Your task to perform on an android device: Go to calendar. Show me events next week Image 0: 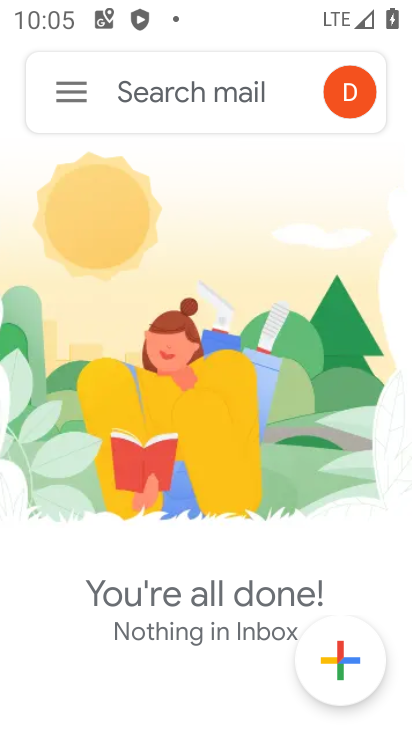
Step 0: press home button
Your task to perform on an android device: Go to calendar. Show me events next week Image 1: 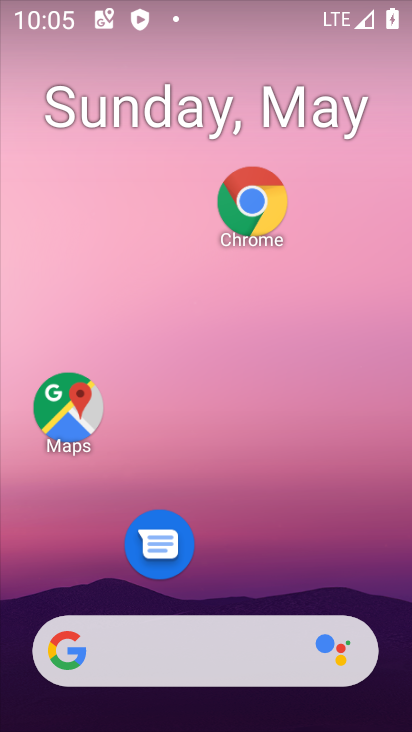
Step 1: drag from (248, 529) to (201, 44)
Your task to perform on an android device: Go to calendar. Show me events next week Image 2: 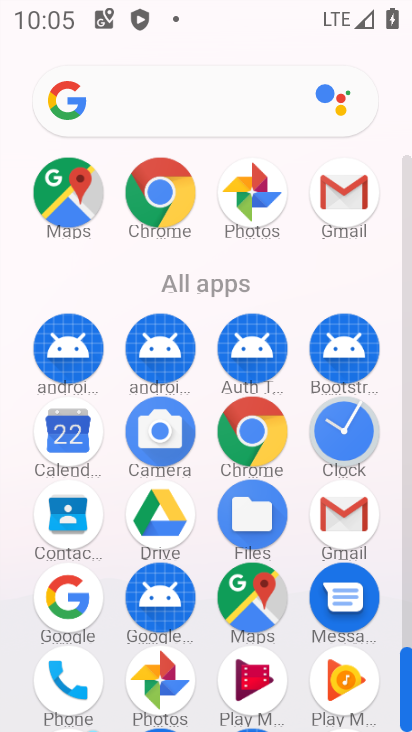
Step 2: click (63, 424)
Your task to perform on an android device: Go to calendar. Show me events next week Image 3: 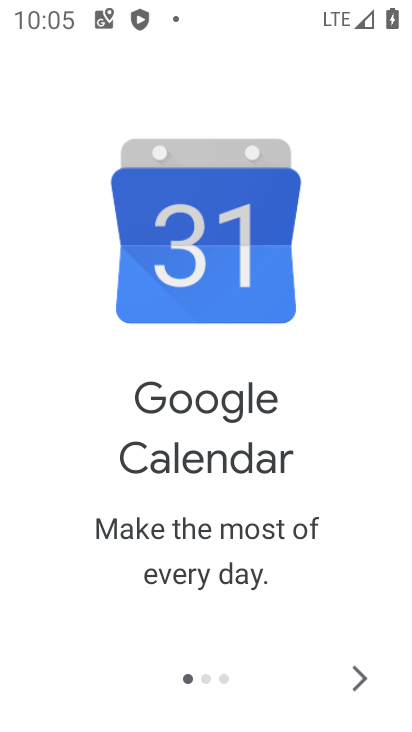
Step 3: click (336, 676)
Your task to perform on an android device: Go to calendar. Show me events next week Image 4: 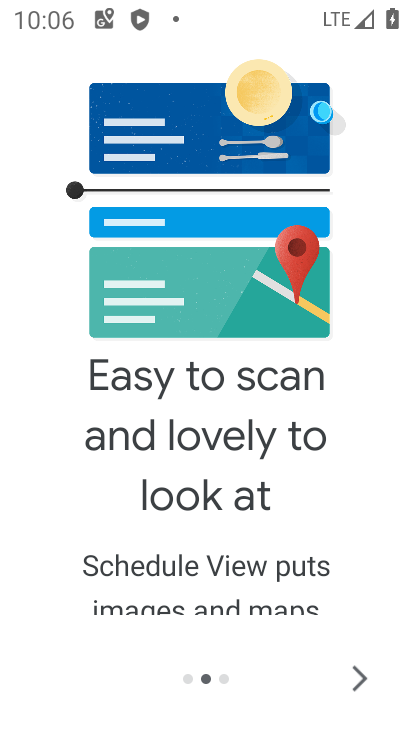
Step 4: click (342, 676)
Your task to perform on an android device: Go to calendar. Show me events next week Image 5: 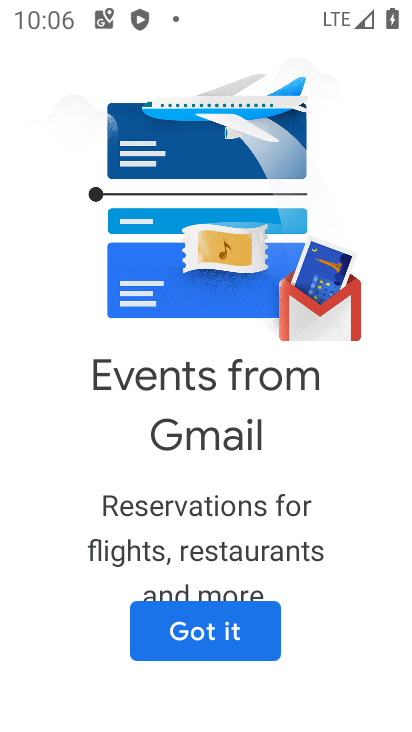
Step 5: click (342, 676)
Your task to perform on an android device: Go to calendar. Show me events next week Image 6: 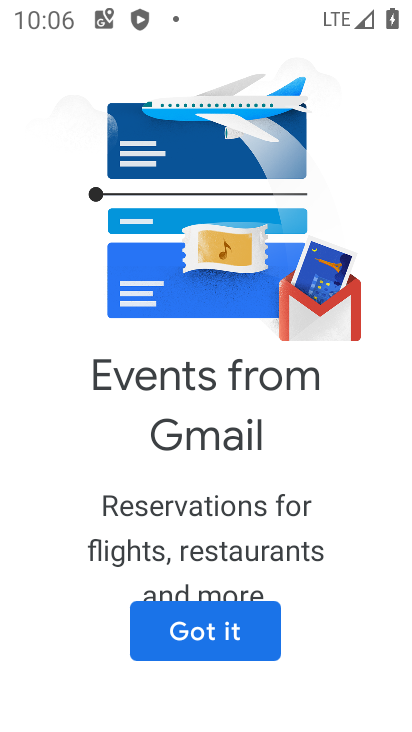
Step 6: click (179, 632)
Your task to perform on an android device: Go to calendar. Show me events next week Image 7: 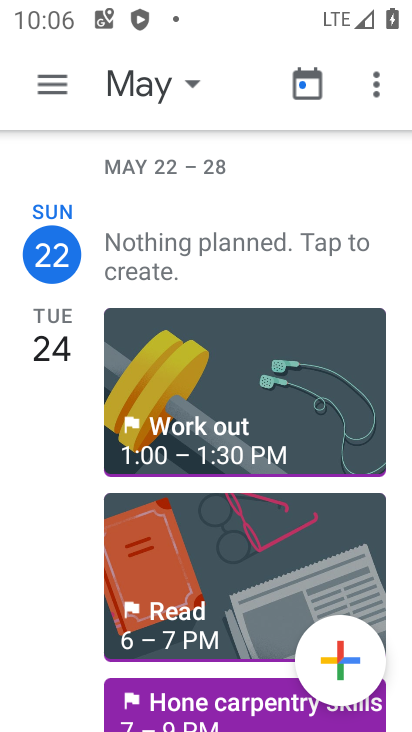
Step 7: click (170, 95)
Your task to perform on an android device: Go to calendar. Show me events next week Image 8: 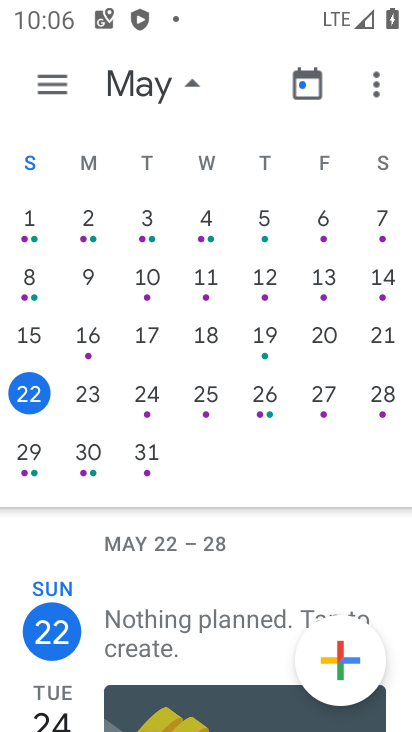
Step 8: click (252, 394)
Your task to perform on an android device: Go to calendar. Show me events next week Image 9: 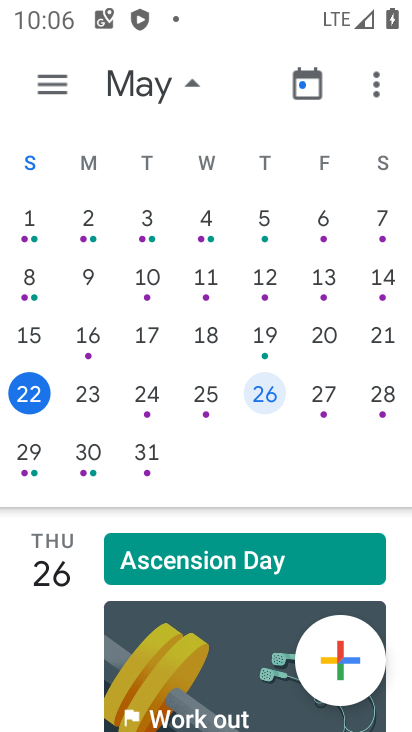
Step 9: task complete